Your task to perform on an android device: toggle sleep mode Image 0: 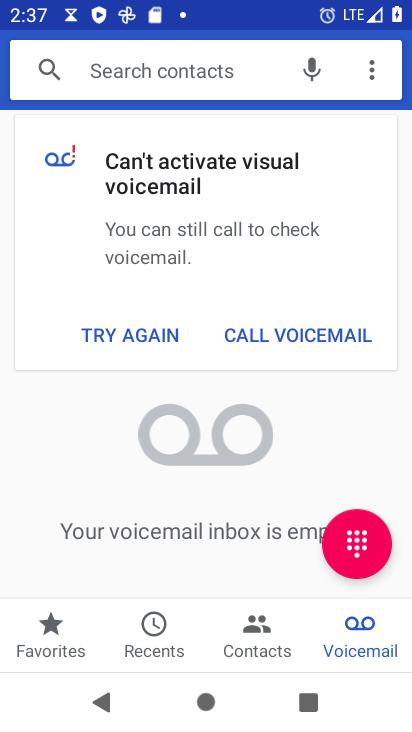
Step 0: press home button
Your task to perform on an android device: toggle sleep mode Image 1: 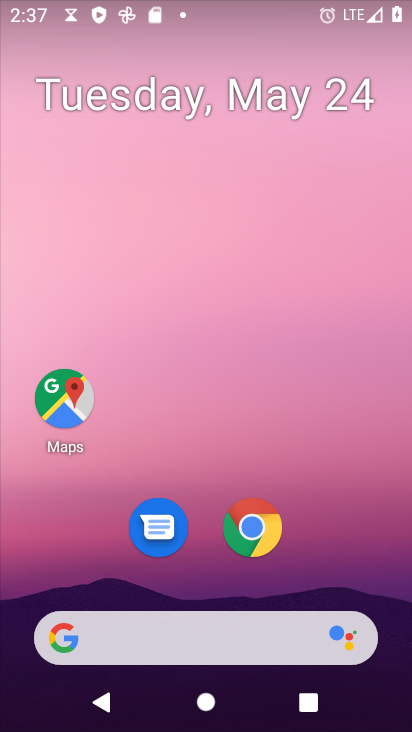
Step 1: click (317, 170)
Your task to perform on an android device: toggle sleep mode Image 2: 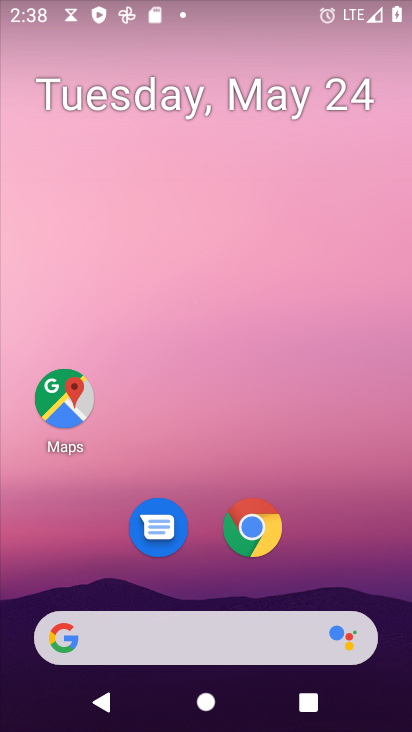
Step 2: drag from (164, 644) to (229, 111)
Your task to perform on an android device: toggle sleep mode Image 3: 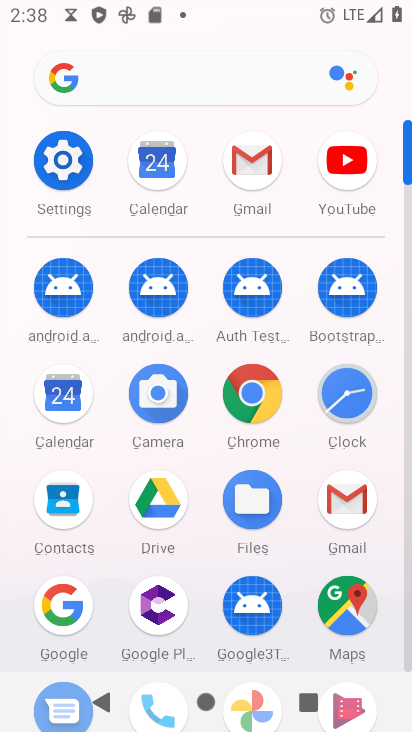
Step 3: click (74, 173)
Your task to perform on an android device: toggle sleep mode Image 4: 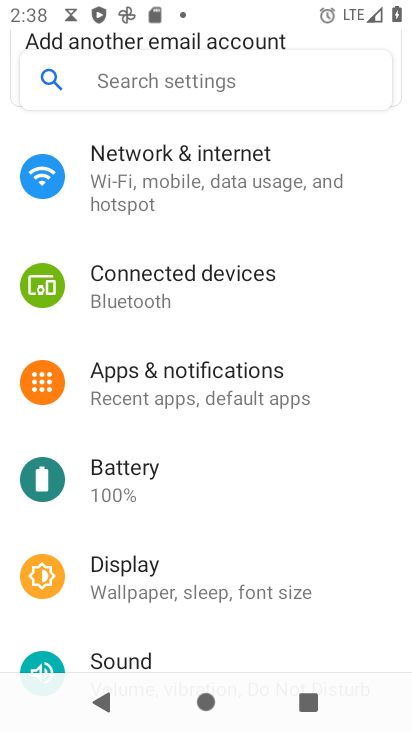
Step 4: click (188, 588)
Your task to perform on an android device: toggle sleep mode Image 5: 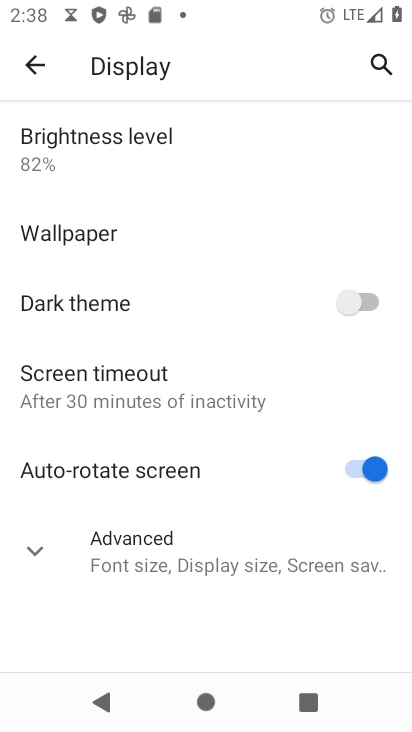
Step 5: task complete